Your task to perform on an android device: visit the assistant section in the google photos Image 0: 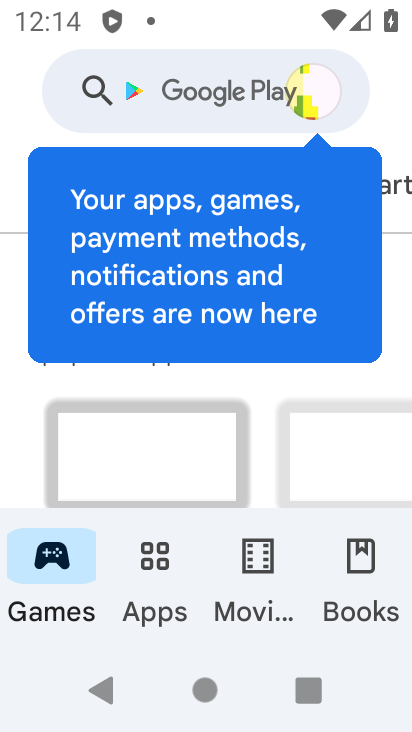
Step 0: press home button
Your task to perform on an android device: visit the assistant section in the google photos Image 1: 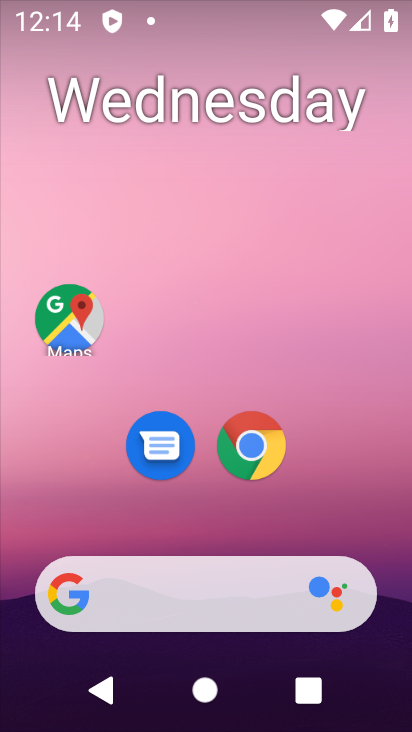
Step 1: drag from (175, 521) to (266, 223)
Your task to perform on an android device: visit the assistant section in the google photos Image 2: 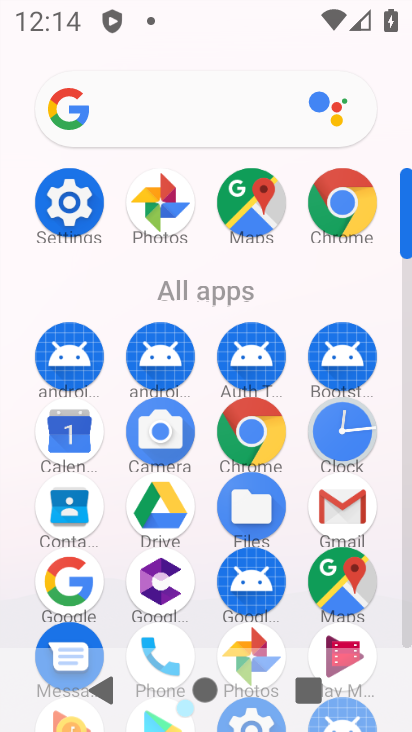
Step 2: click (253, 651)
Your task to perform on an android device: visit the assistant section in the google photos Image 3: 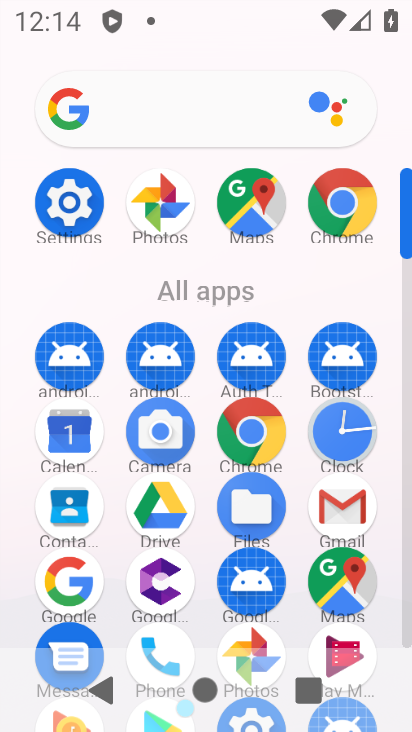
Step 3: drag from (294, 555) to (339, 396)
Your task to perform on an android device: visit the assistant section in the google photos Image 4: 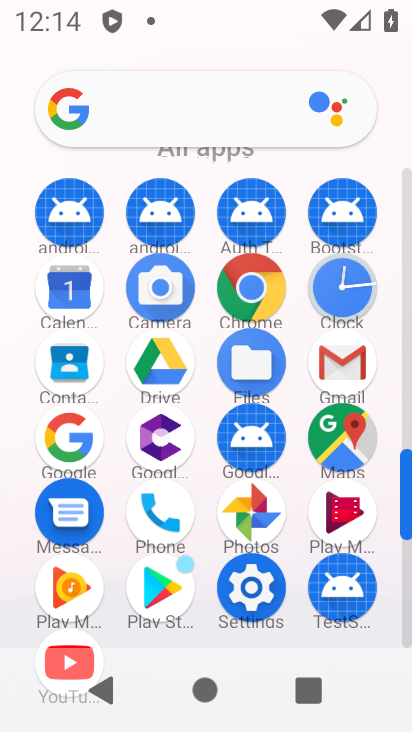
Step 4: click (250, 511)
Your task to perform on an android device: visit the assistant section in the google photos Image 5: 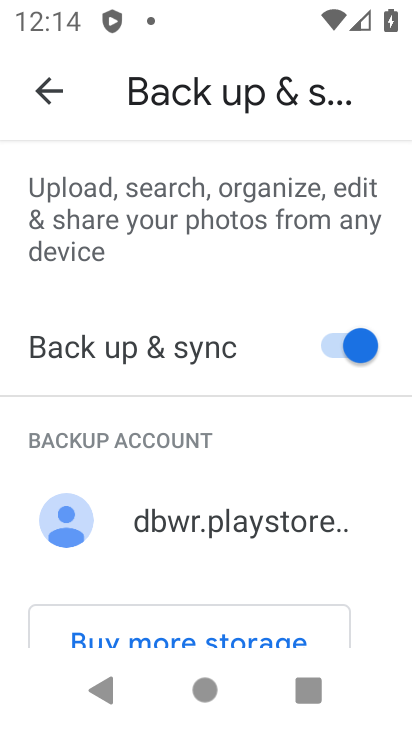
Step 5: click (42, 86)
Your task to perform on an android device: visit the assistant section in the google photos Image 6: 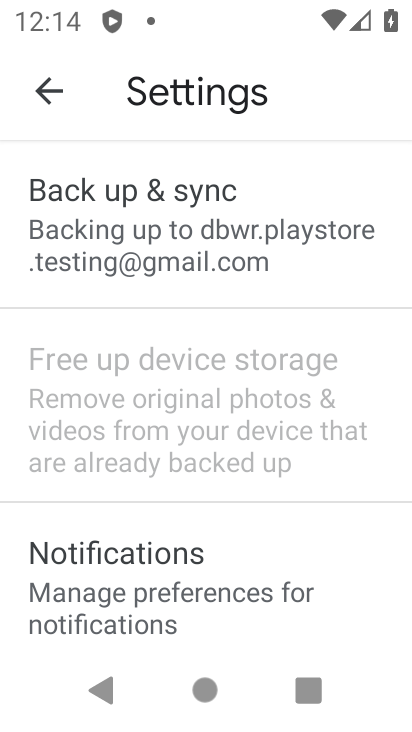
Step 6: click (68, 82)
Your task to perform on an android device: visit the assistant section in the google photos Image 7: 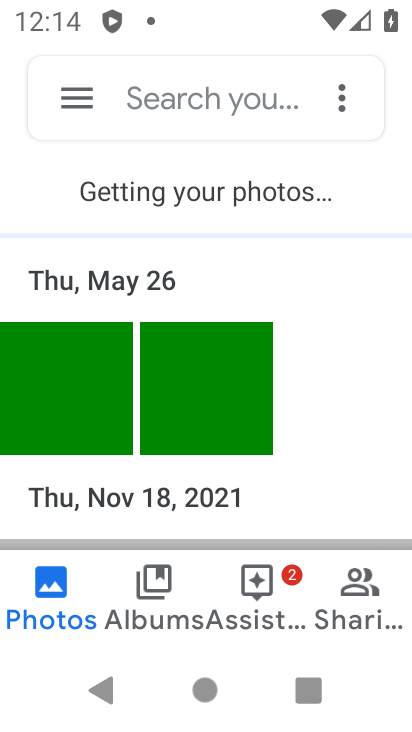
Step 7: click (263, 580)
Your task to perform on an android device: visit the assistant section in the google photos Image 8: 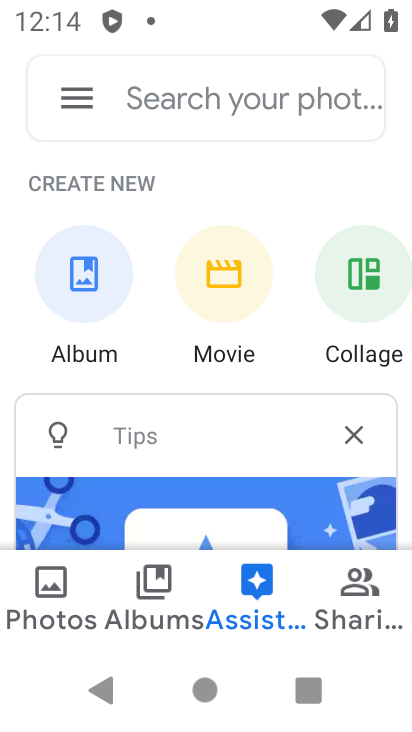
Step 8: task complete